Your task to perform on an android device: visit the assistant section in the google photos Image 0: 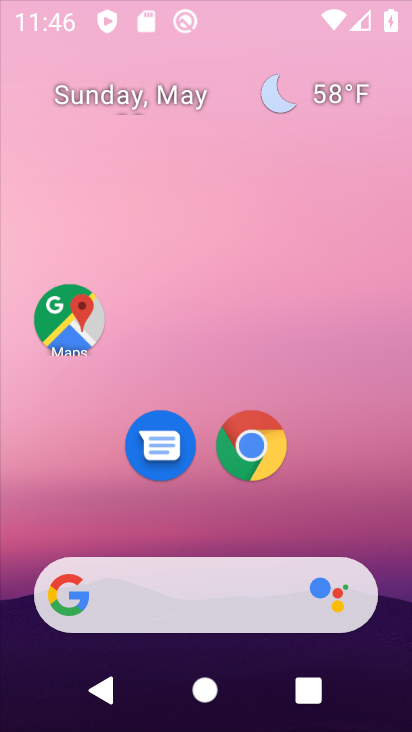
Step 0: press home button
Your task to perform on an android device: visit the assistant section in the google photos Image 1: 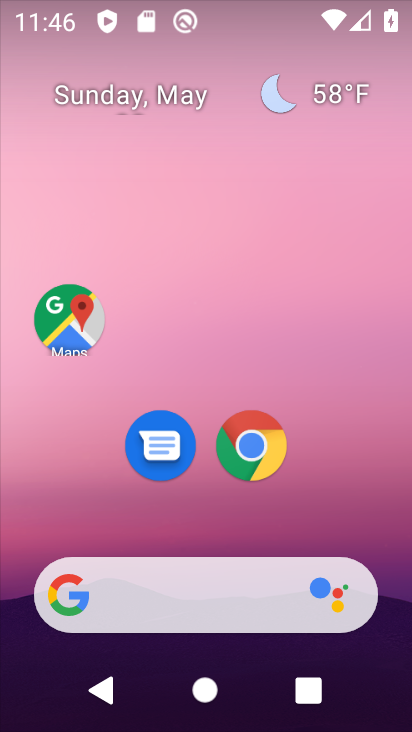
Step 1: drag from (206, 535) to (208, 11)
Your task to perform on an android device: visit the assistant section in the google photos Image 2: 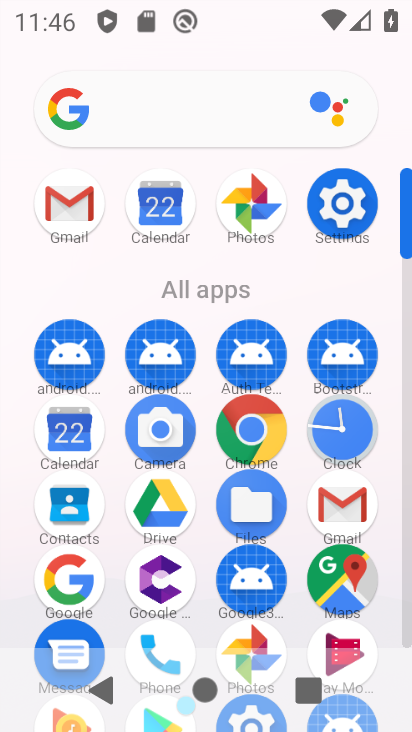
Step 2: click (248, 194)
Your task to perform on an android device: visit the assistant section in the google photos Image 3: 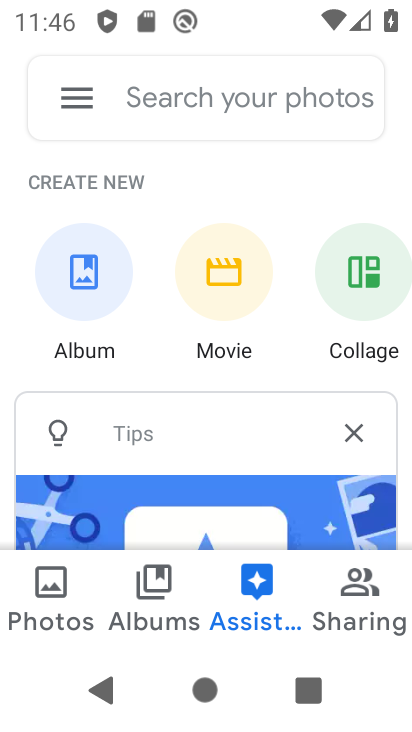
Step 3: task complete